Your task to perform on an android device: stop showing notifications on the lock screen Image 0: 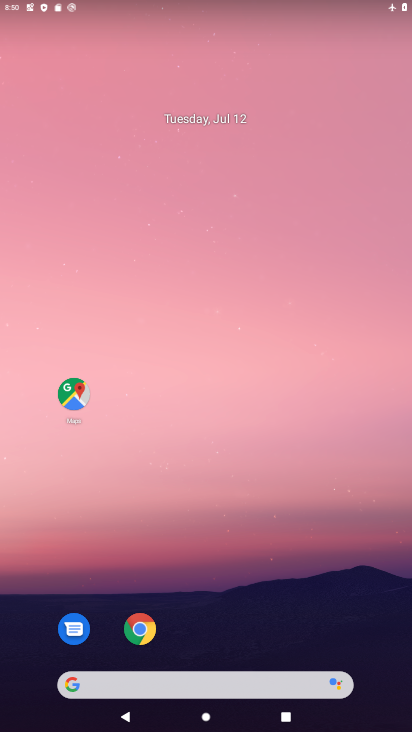
Step 0: drag from (335, 617) to (292, 184)
Your task to perform on an android device: stop showing notifications on the lock screen Image 1: 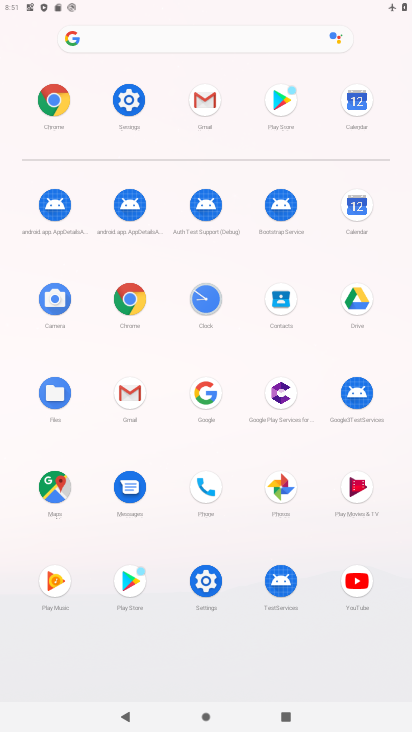
Step 1: click (125, 98)
Your task to perform on an android device: stop showing notifications on the lock screen Image 2: 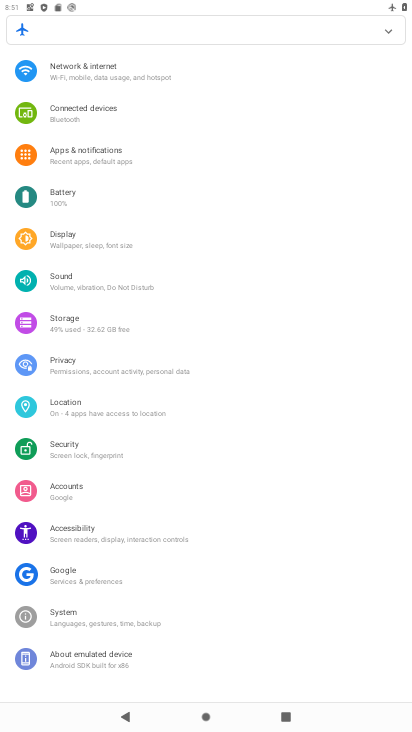
Step 2: click (70, 140)
Your task to perform on an android device: stop showing notifications on the lock screen Image 3: 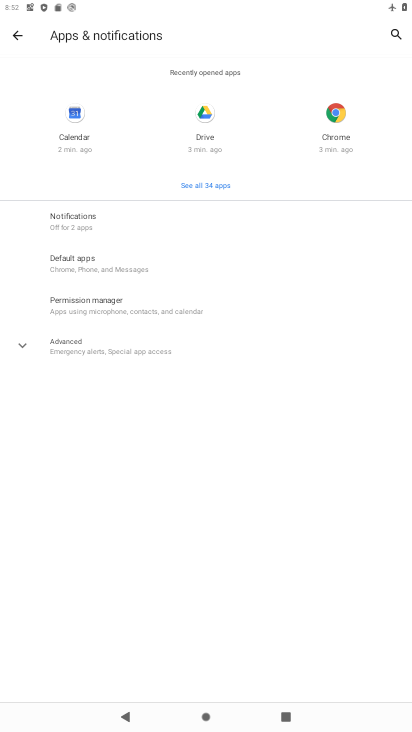
Step 3: click (91, 203)
Your task to perform on an android device: stop showing notifications on the lock screen Image 4: 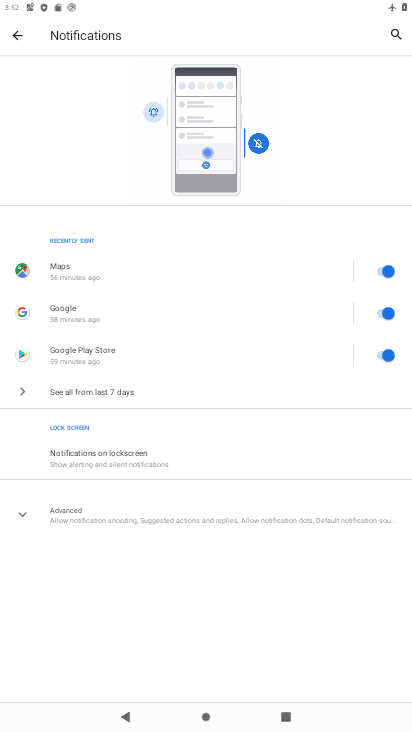
Step 4: click (146, 460)
Your task to perform on an android device: stop showing notifications on the lock screen Image 5: 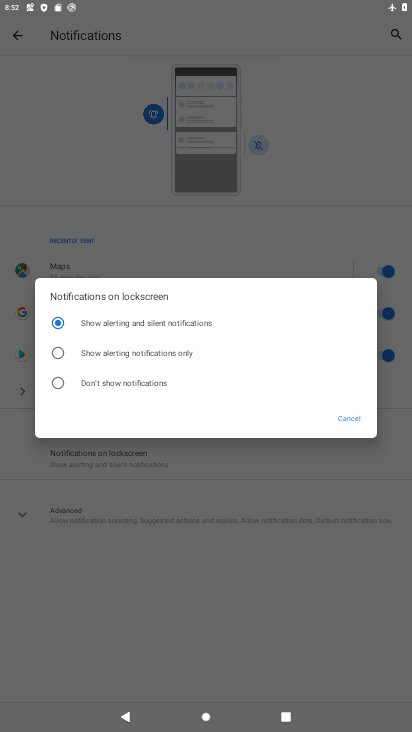
Step 5: click (140, 387)
Your task to perform on an android device: stop showing notifications on the lock screen Image 6: 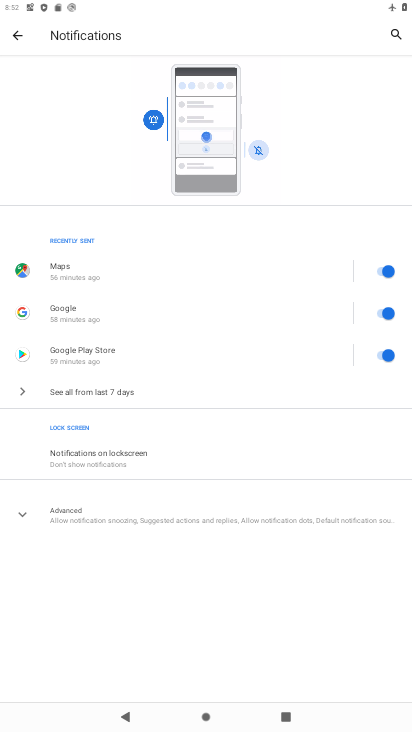
Step 6: task complete